Your task to perform on an android device: Install the CNN app Image 0: 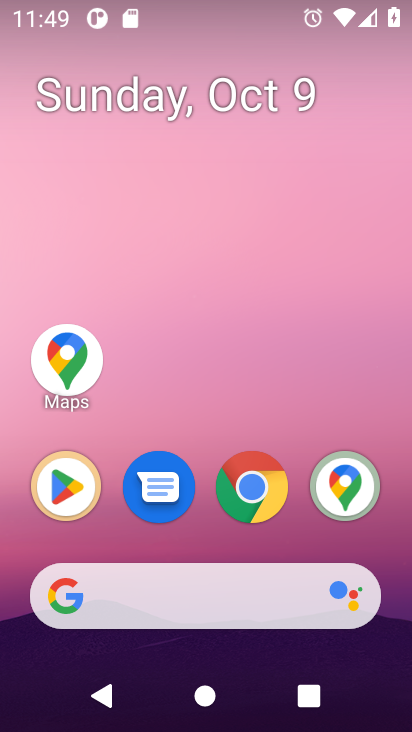
Step 0: drag from (205, 552) to (231, 40)
Your task to perform on an android device: Install the CNN app Image 1: 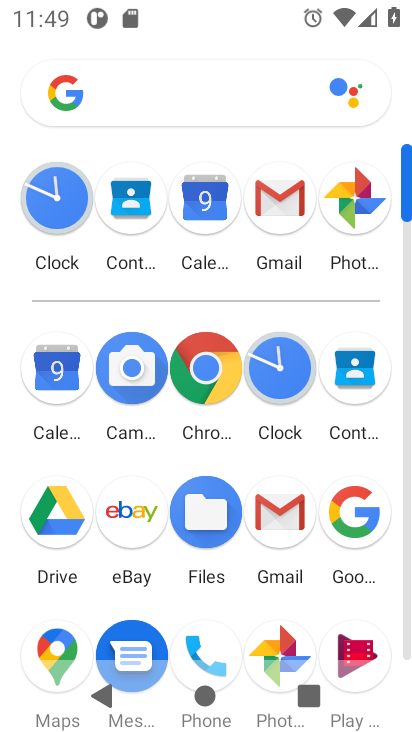
Step 1: drag from (299, 586) to (262, 191)
Your task to perform on an android device: Install the CNN app Image 2: 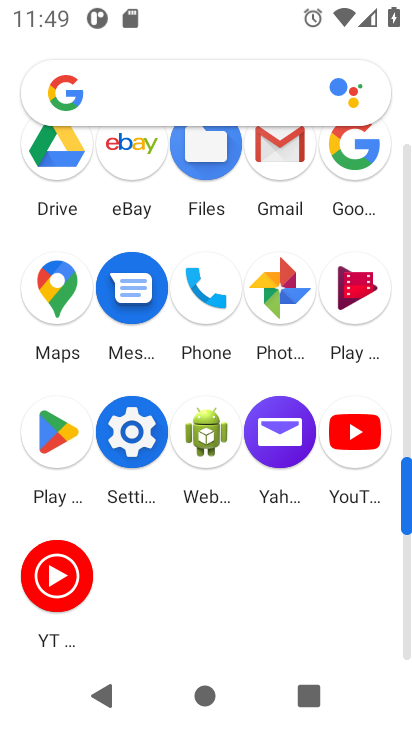
Step 2: click (60, 430)
Your task to perform on an android device: Install the CNN app Image 3: 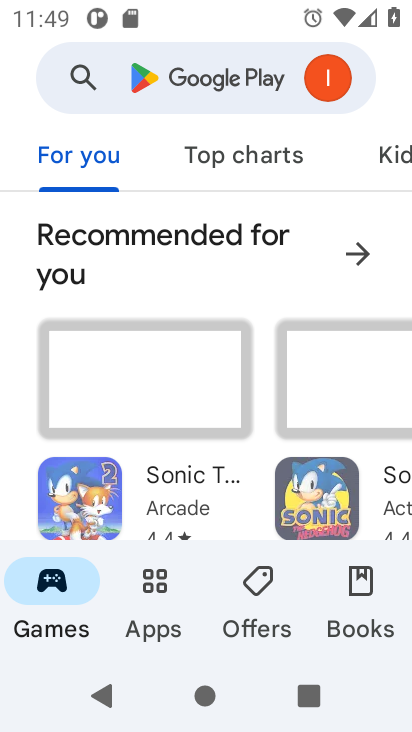
Step 3: click (80, 67)
Your task to perform on an android device: Install the CNN app Image 4: 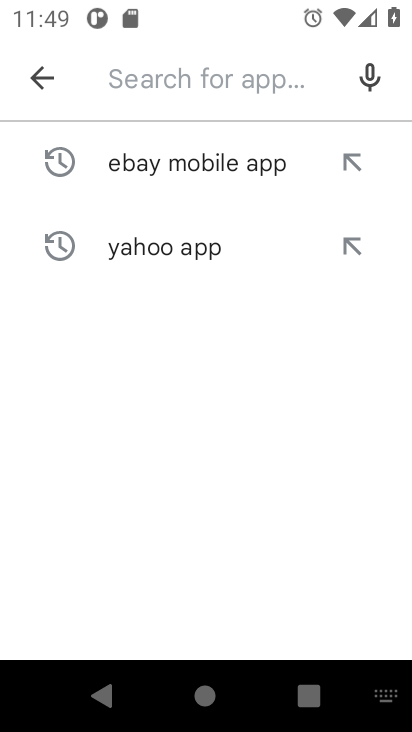
Step 4: type "CNN app"
Your task to perform on an android device: Install the CNN app Image 5: 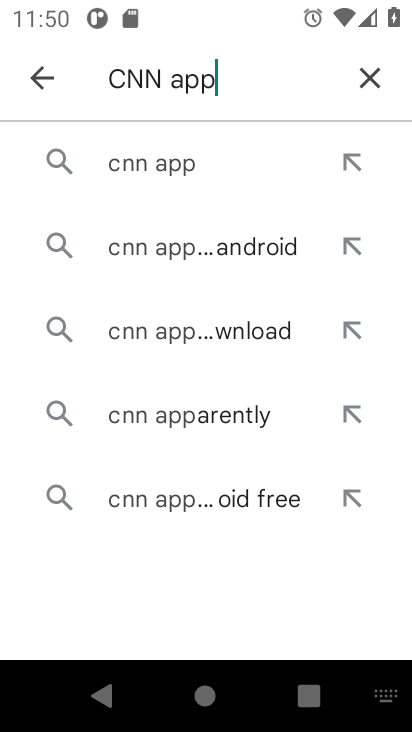
Step 5: click (164, 162)
Your task to perform on an android device: Install the CNN app Image 6: 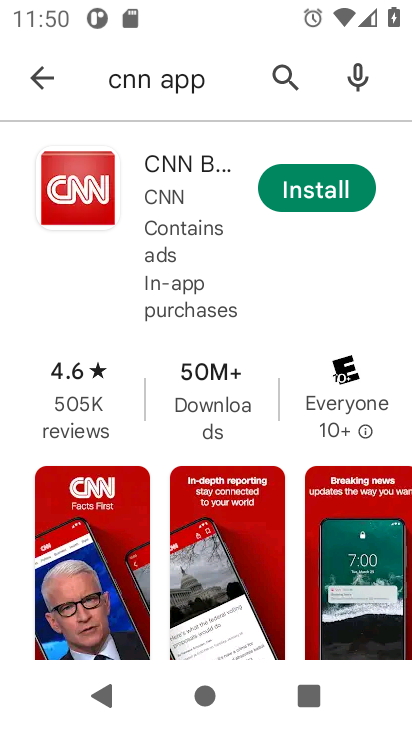
Step 6: click (323, 187)
Your task to perform on an android device: Install the CNN app Image 7: 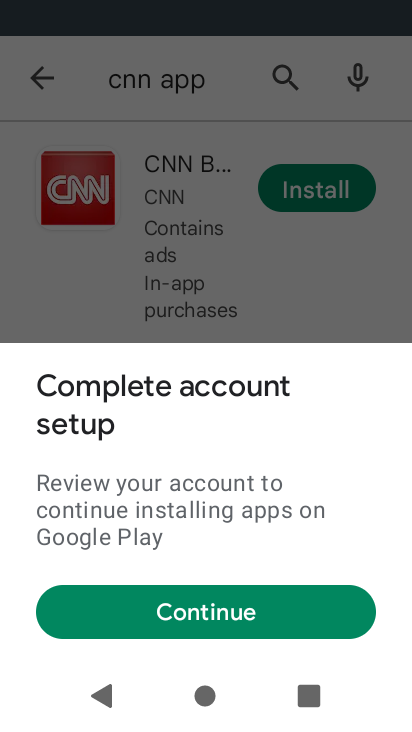
Step 7: click (226, 612)
Your task to perform on an android device: Install the CNN app Image 8: 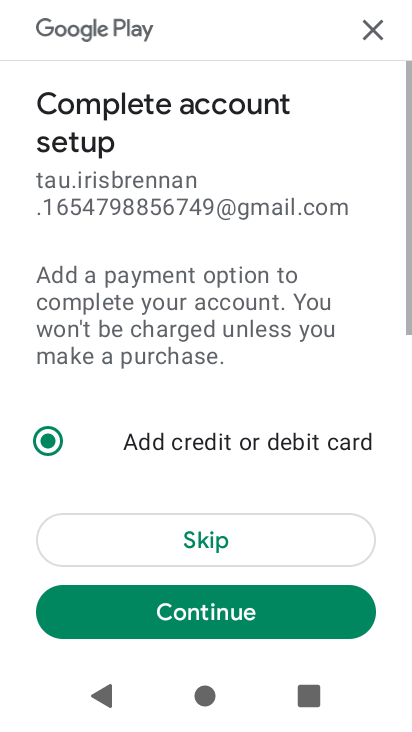
Step 8: click (216, 543)
Your task to perform on an android device: Install the CNN app Image 9: 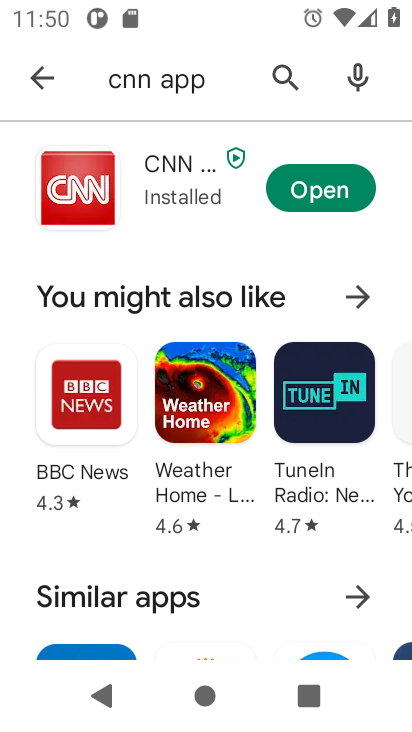
Step 9: task complete